Your task to perform on an android device: Go to Android settings Image 0: 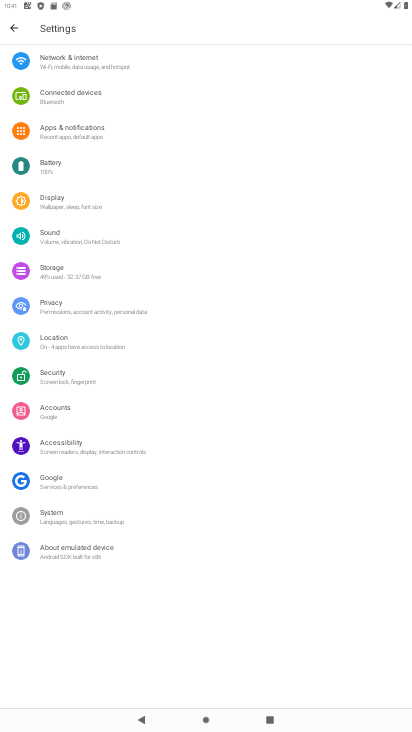
Step 0: task complete